Your task to perform on an android device: open chrome privacy settings Image 0: 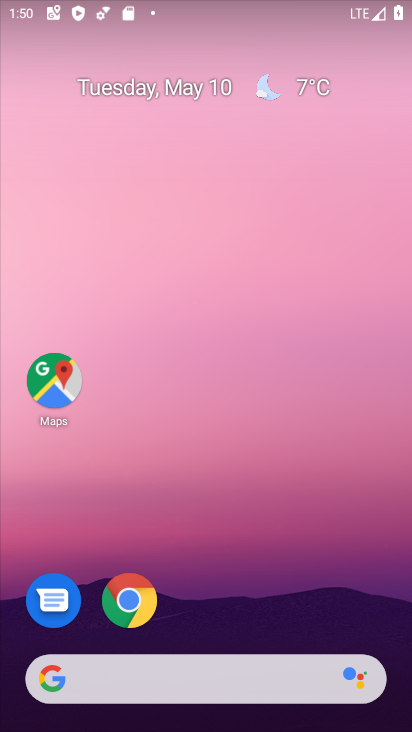
Step 0: press home button
Your task to perform on an android device: open chrome privacy settings Image 1: 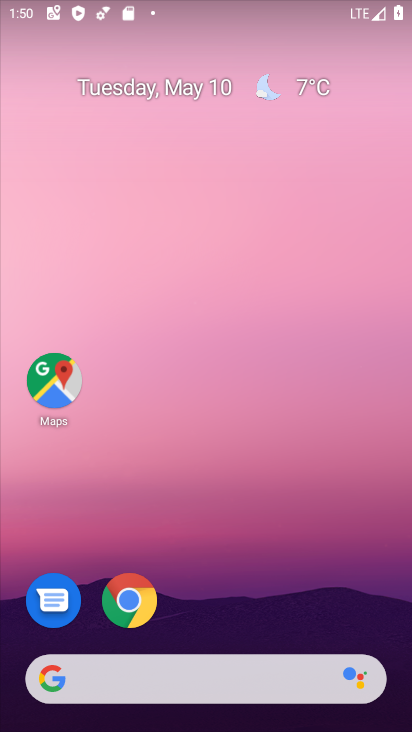
Step 1: click (133, 606)
Your task to perform on an android device: open chrome privacy settings Image 2: 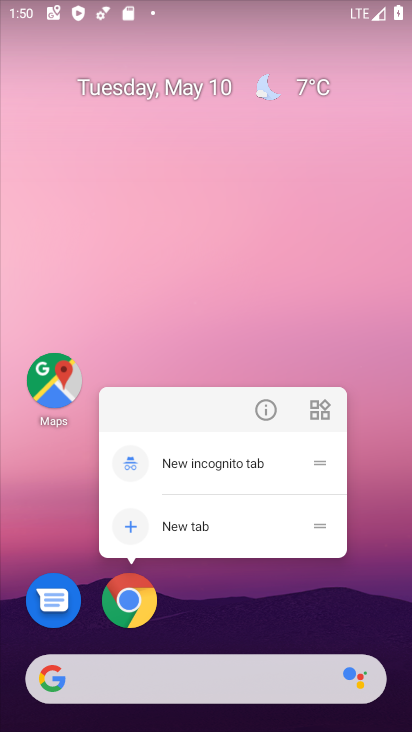
Step 2: click (148, 612)
Your task to perform on an android device: open chrome privacy settings Image 3: 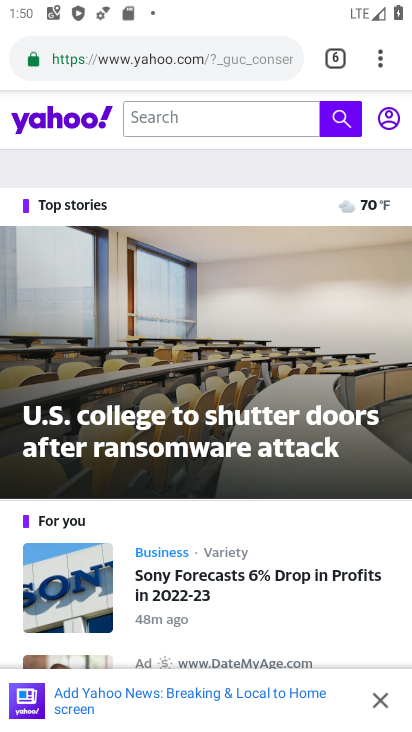
Step 3: drag from (380, 63) to (219, 631)
Your task to perform on an android device: open chrome privacy settings Image 4: 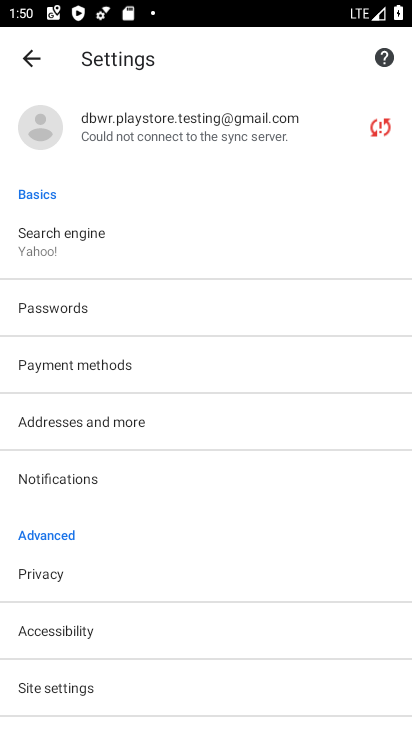
Step 4: click (47, 571)
Your task to perform on an android device: open chrome privacy settings Image 5: 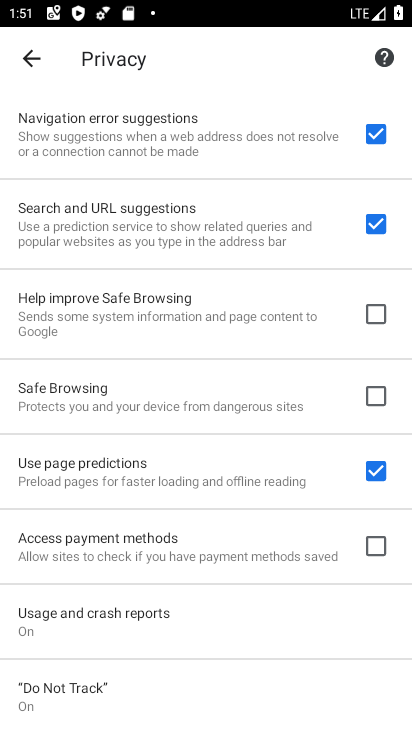
Step 5: task complete